Your task to perform on an android device: Go to Android settings Image 0: 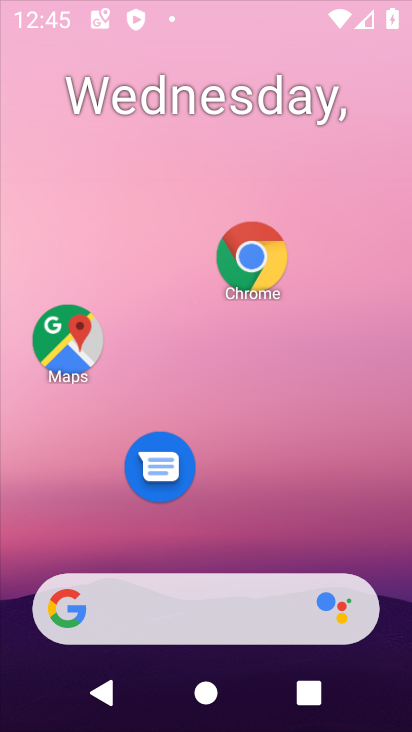
Step 0: press home button
Your task to perform on an android device: Go to Android settings Image 1: 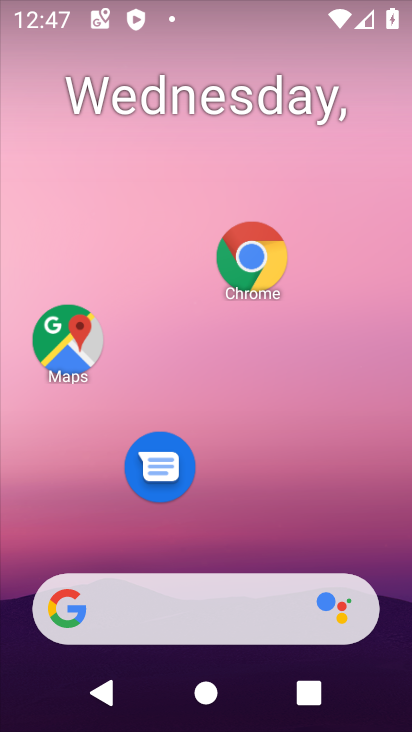
Step 1: drag from (251, 528) to (243, 116)
Your task to perform on an android device: Go to Android settings Image 2: 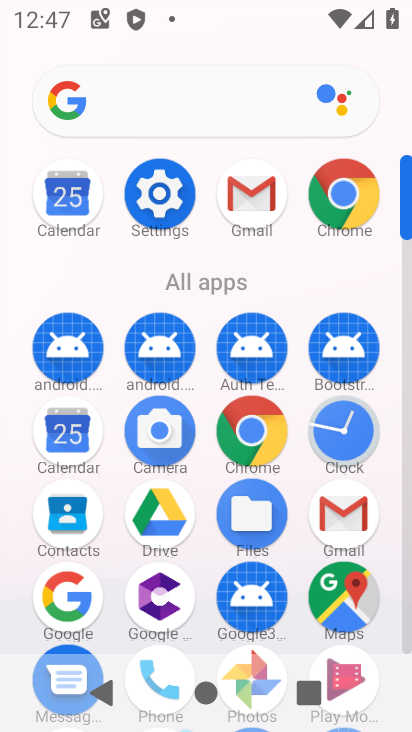
Step 2: click (168, 186)
Your task to perform on an android device: Go to Android settings Image 3: 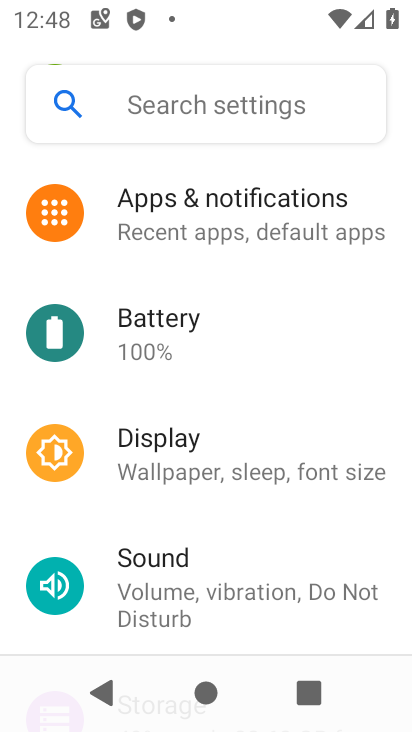
Step 3: drag from (173, 544) to (183, 299)
Your task to perform on an android device: Go to Android settings Image 4: 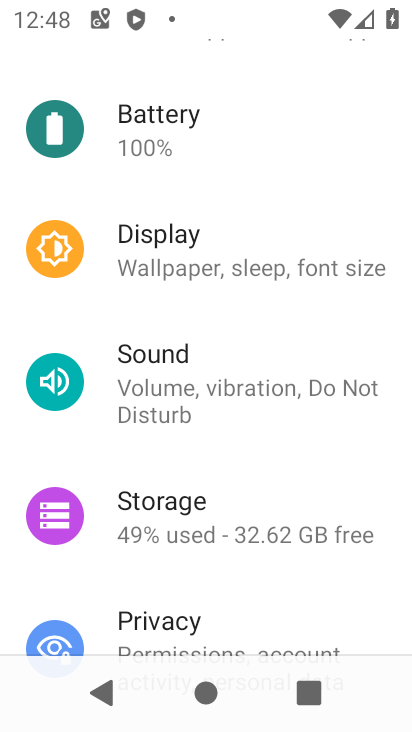
Step 4: drag from (204, 559) to (276, 171)
Your task to perform on an android device: Go to Android settings Image 5: 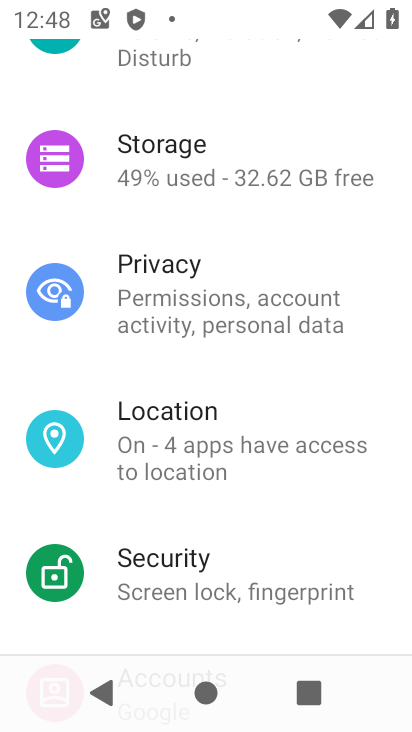
Step 5: drag from (331, 451) to (308, 40)
Your task to perform on an android device: Go to Android settings Image 6: 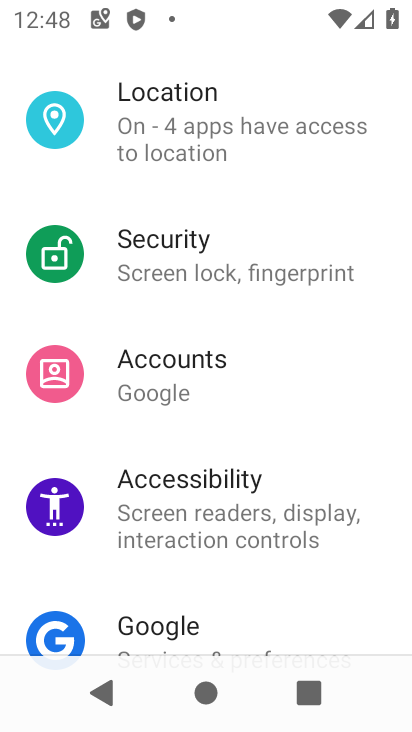
Step 6: drag from (298, 614) to (236, 172)
Your task to perform on an android device: Go to Android settings Image 7: 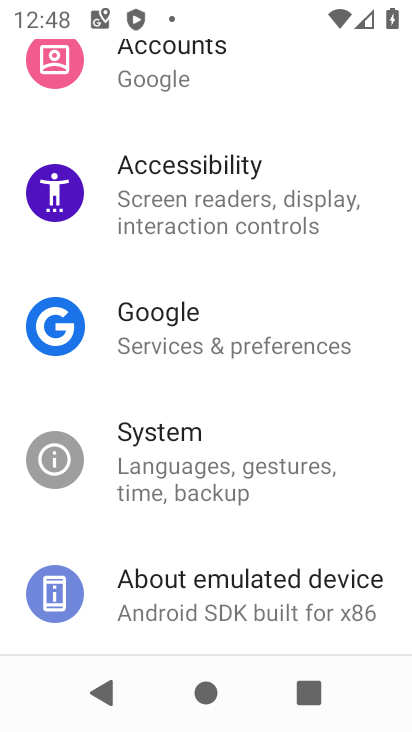
Step 7: drag from (324, 554) to (323, 125)
Your task to perform on an android device: Go to Android settings Image 8: 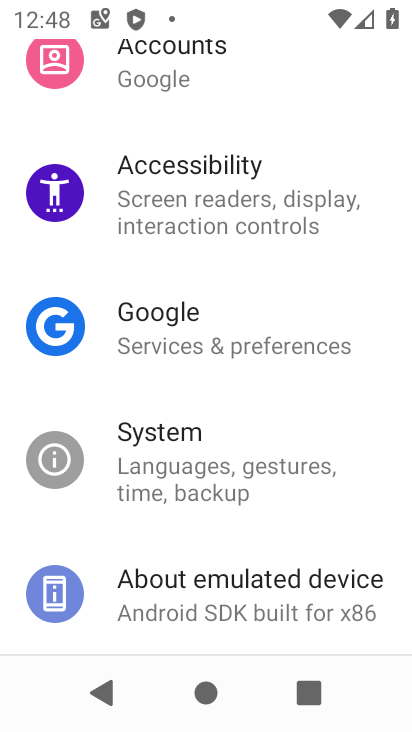
Step 8: click (232, 603)
Your task to perform on an android device: Go to Android settings Image 9: 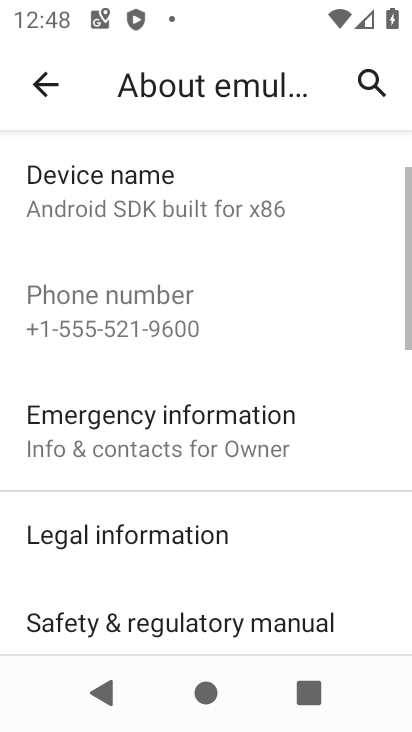
Step 9: drag from (223, 552) to (220, 26)
Your task to perform on an android device: Go to Android settings Image 10: 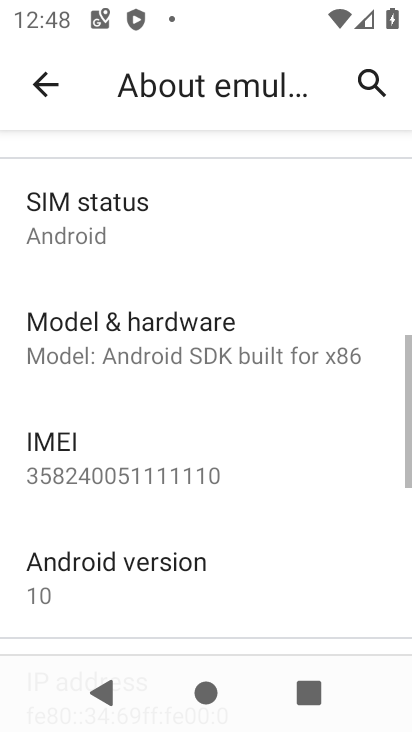
Step 10: click (138, 583)
Your task to perform on an android device: Go to Android settings Image 11: 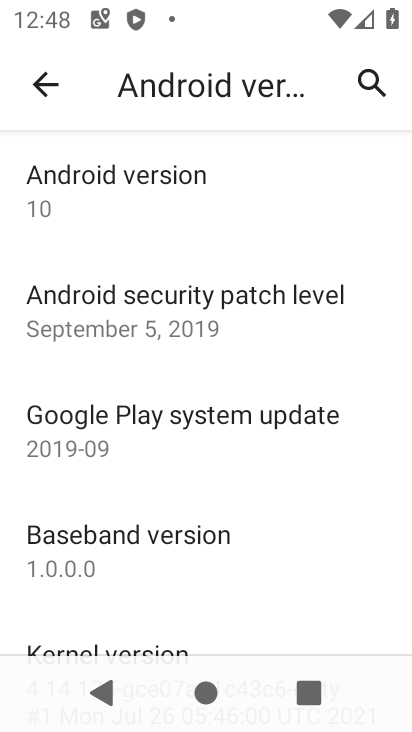
Step 11: task complete